Your task to perform on an android device: turn off wifi Image 0: 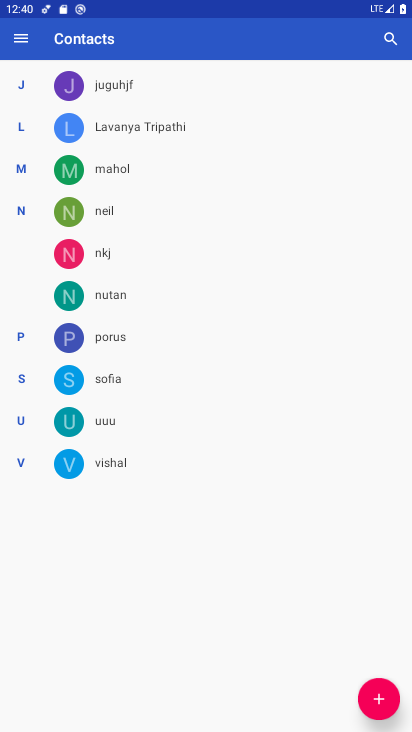
Step 0: press home button
Your task to perform on an android device: turn off wifi Image 1: 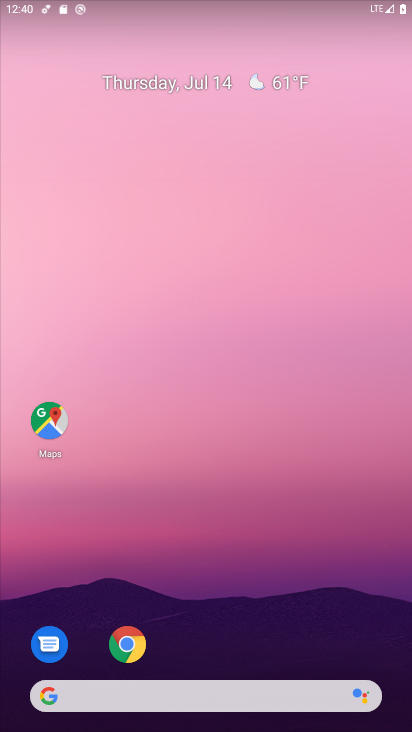
Step 1: drag from (267, 639) to (276, 12)
Your task to perform on an android device: turn off wifi Image 2: 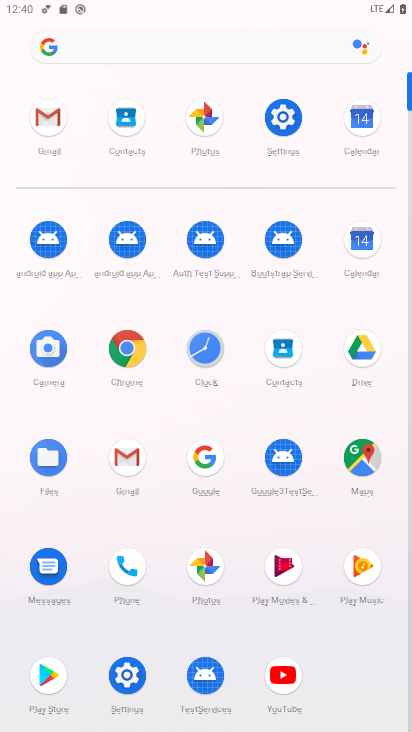
Step 2: click (281, 135)
Your task to perform on an android device: turn off wifi Image 3: 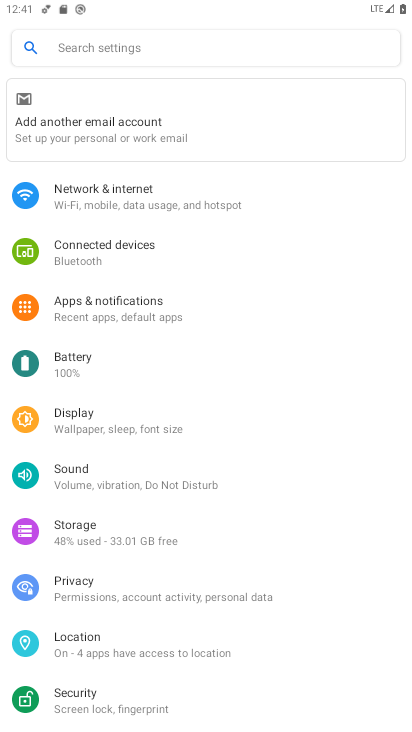
Step 3: click (169, 196)
Your task to perform on an android device: turn off wifi Image 4: 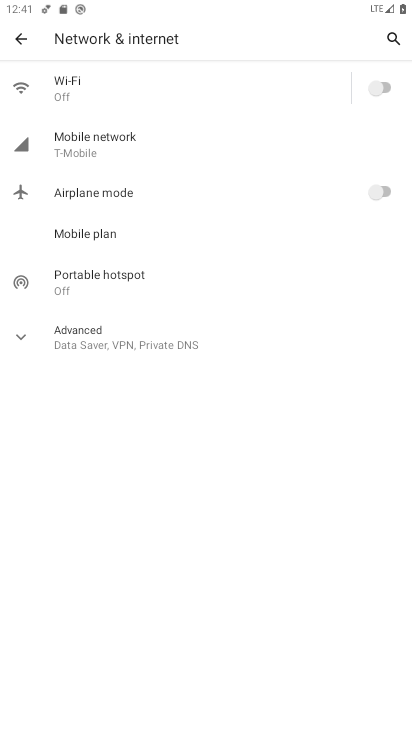
Step 4: task complete